Your task to perform on an android device: Open Google Maps Image 0: 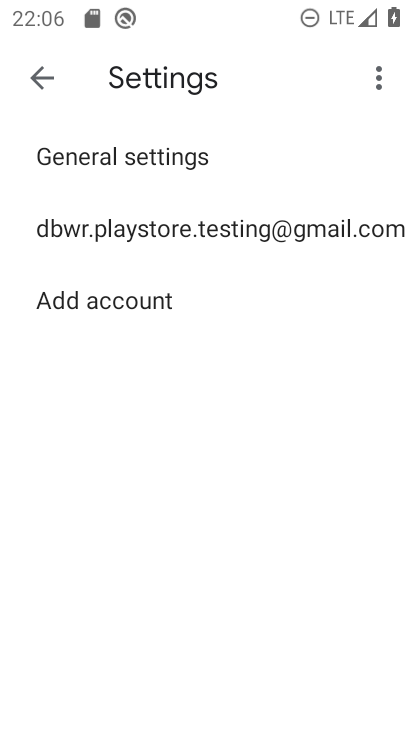
Step 0: press home button
Your task to perform on an android device: Open Google Maps Image 1: 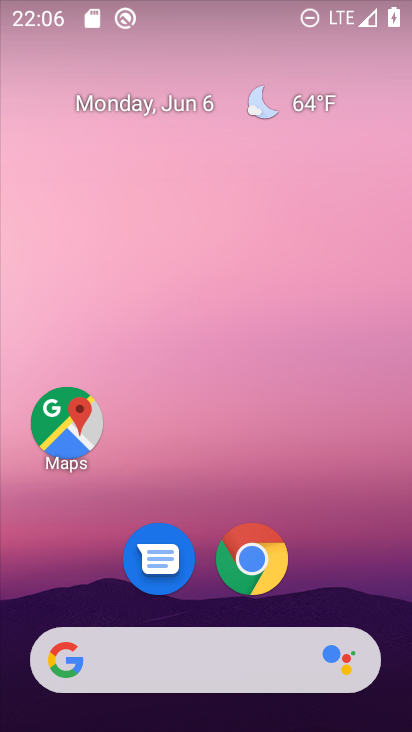
Step 1: drag from (219, 726) to (206, 179)
Your task to perform on an android device: Open Google Maps Image 2: 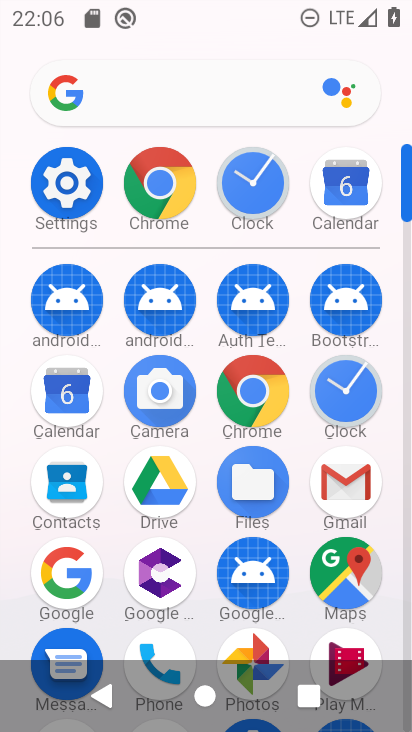
Step 2: click (332, 566)
Your task to perform on an android device: Open Google Maps Image 3: 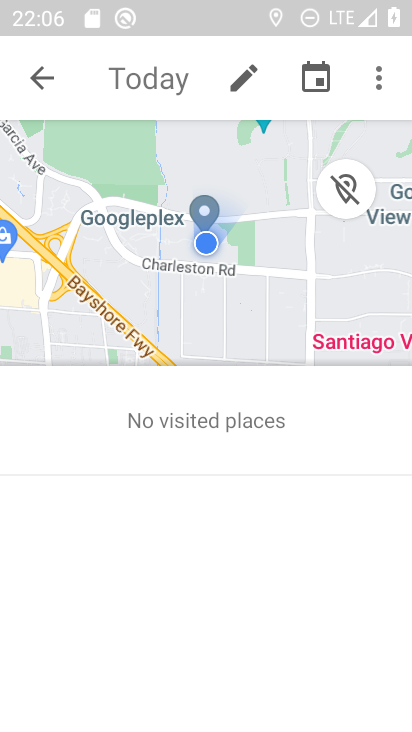
Step 3: task complete